Your task to perform on an android device: open app "Skype" (install if not already installed) Image 0: 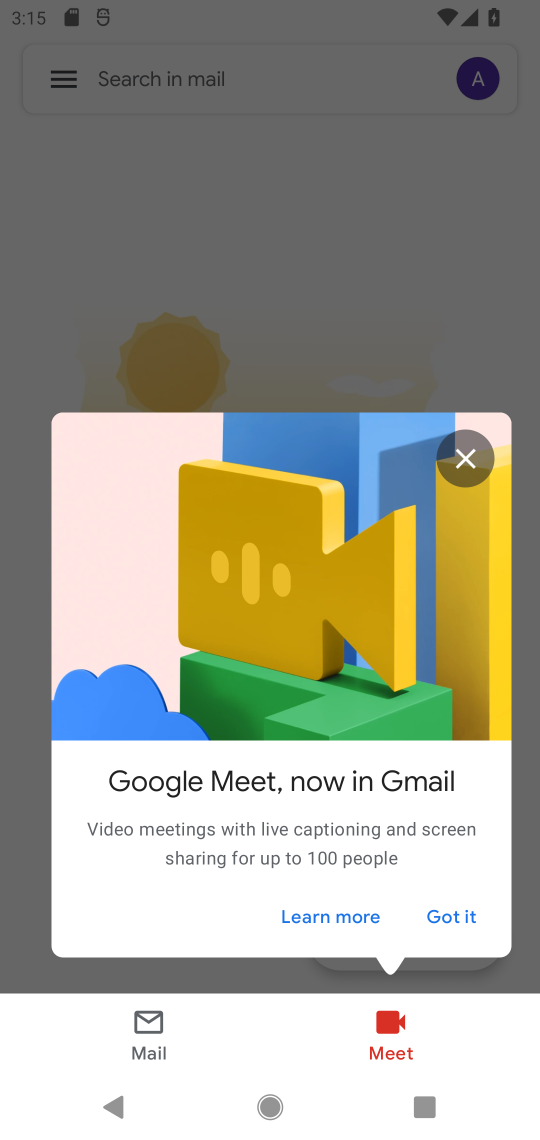
Step 0: press home button
Your task to perform on an android device: open app "Skype" (install if not already installed) Image 1: 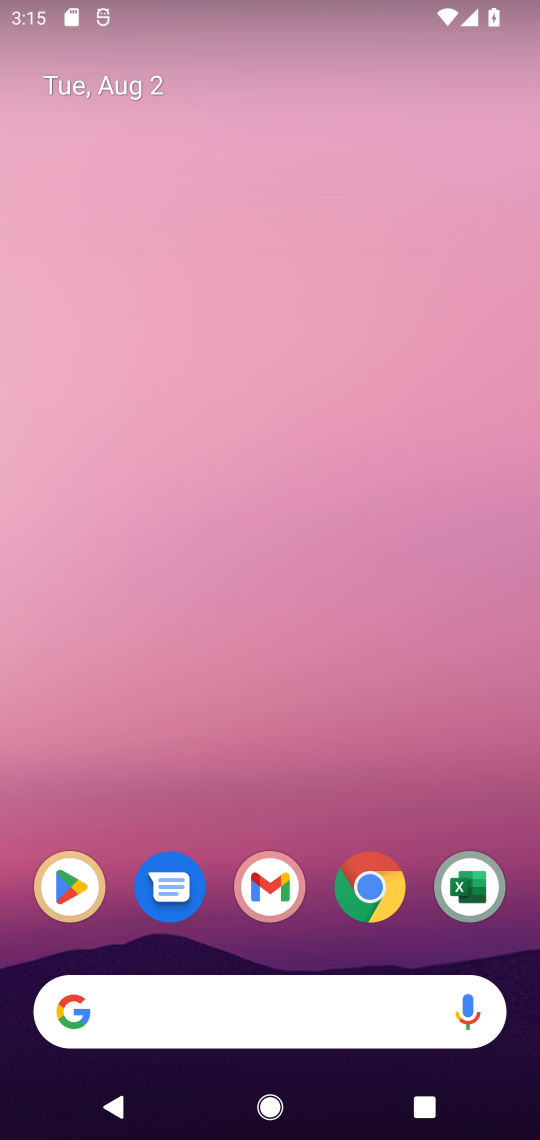
Step 1: click (63, 883)
Your task to perform on an android device: open app "Skype" (install if not already installed) Image 2: 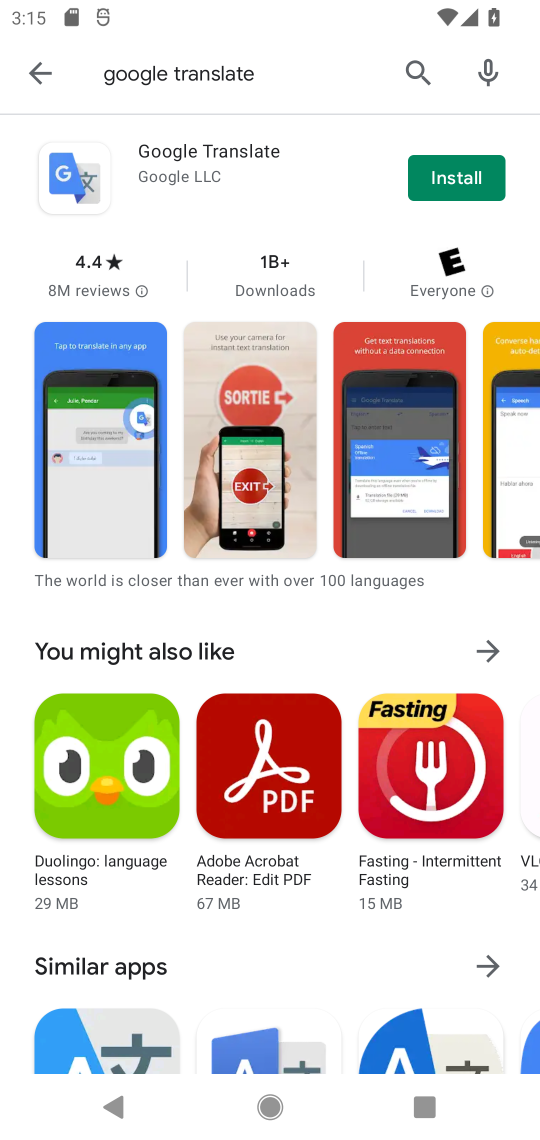
Step 2: click (52, 59)
Your task to perform on an android device: open app "Skype" (install if not already installed) Image 3: 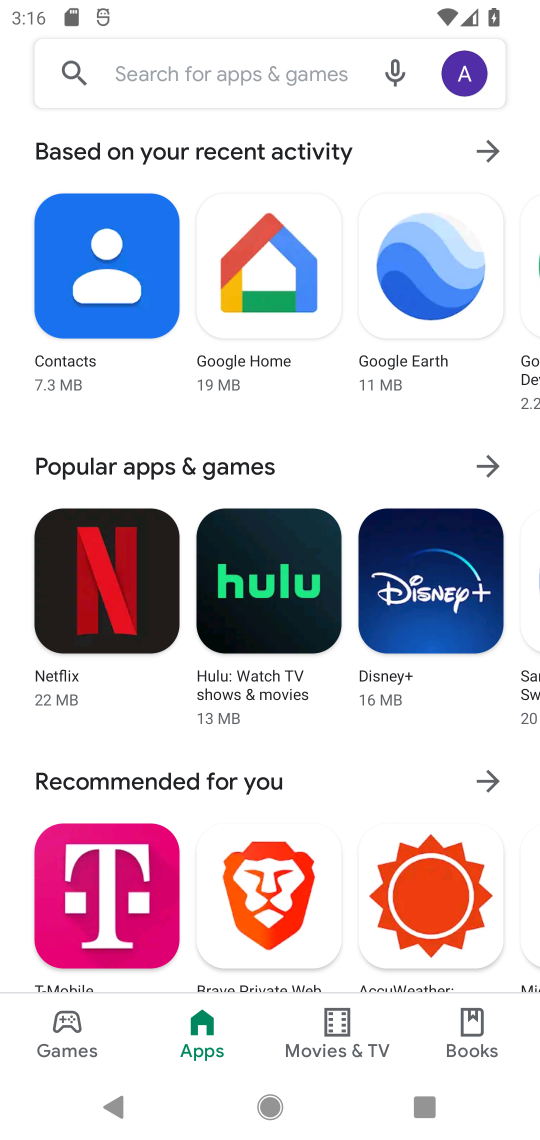
Step 3: click (131, 76)
Your task to perform on an android device: open app "Skype" (install if not already installed) Image 4: 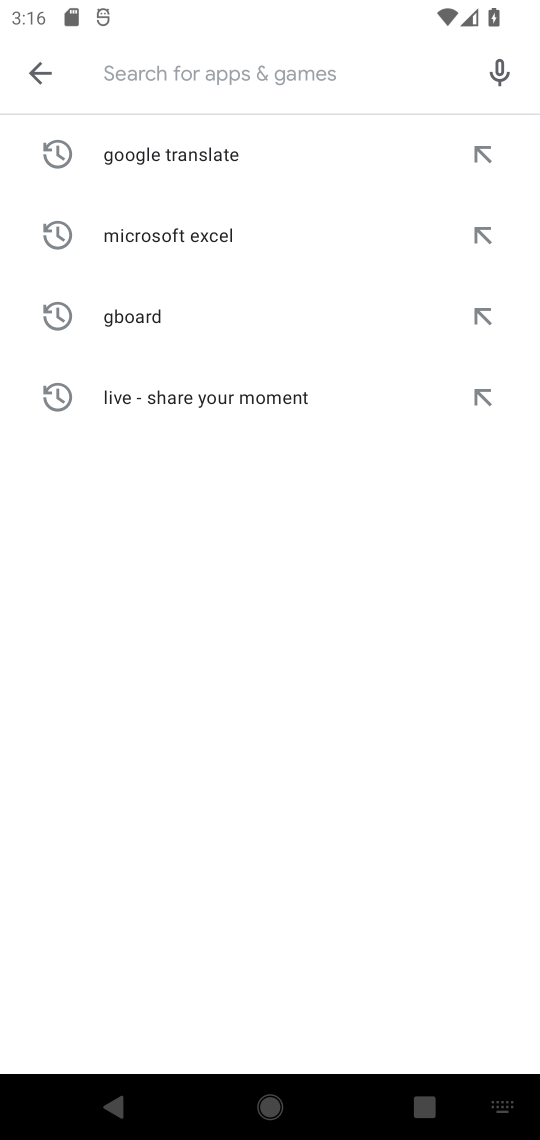
Step 4: type "Skype"
Your task to perform on an android device: open app "Skype" (install if not already installed) Image 5: 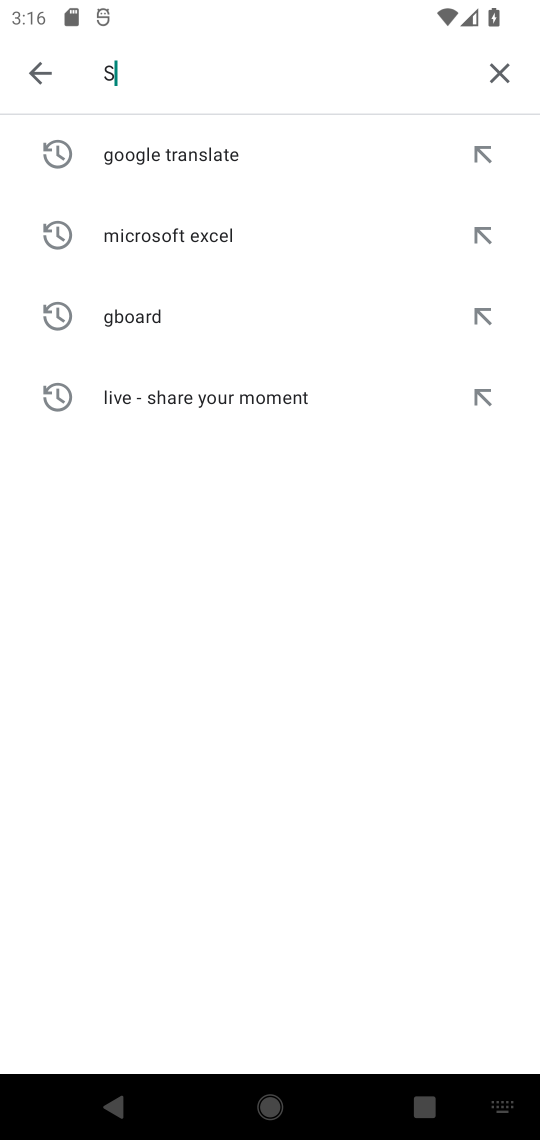
Step 5: type ""
Your task to perform on an android device: open app "Skype" (install if not already installed) Image 6: 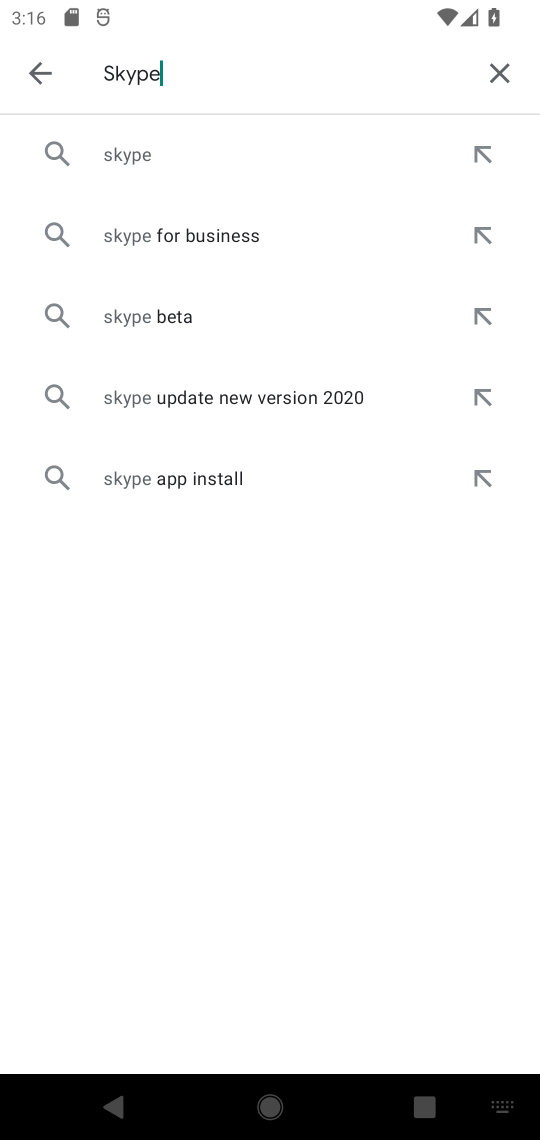
Step 6: click (147, 167)
Your task to perform on an android device: open app "Skype" (install if not already installed) Image 7: 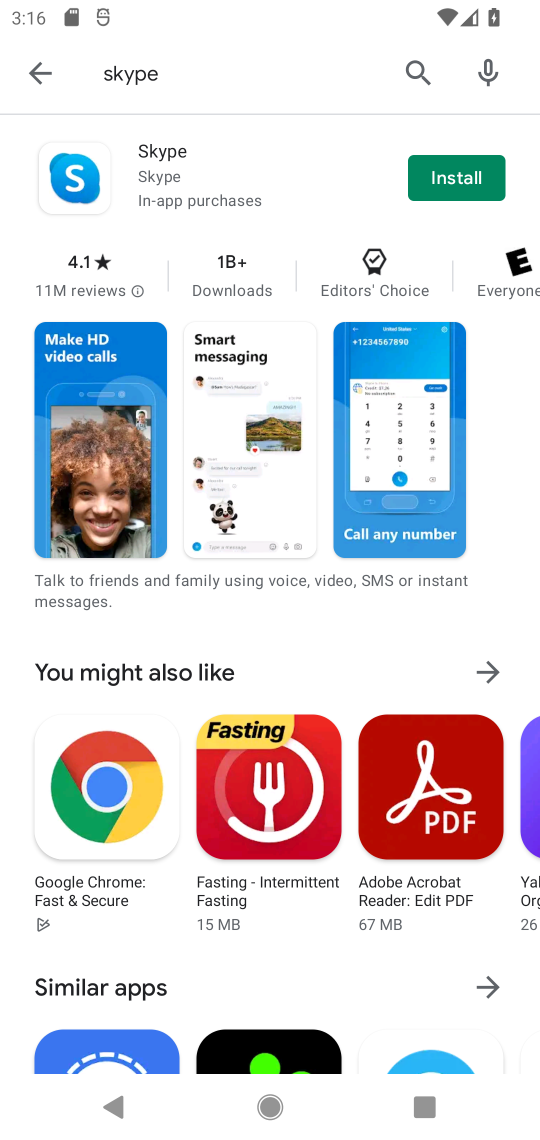
Step 7: click (459, 187)
Your task to perform on an android device: open app "Skype" (install if not already installed) Image 8: 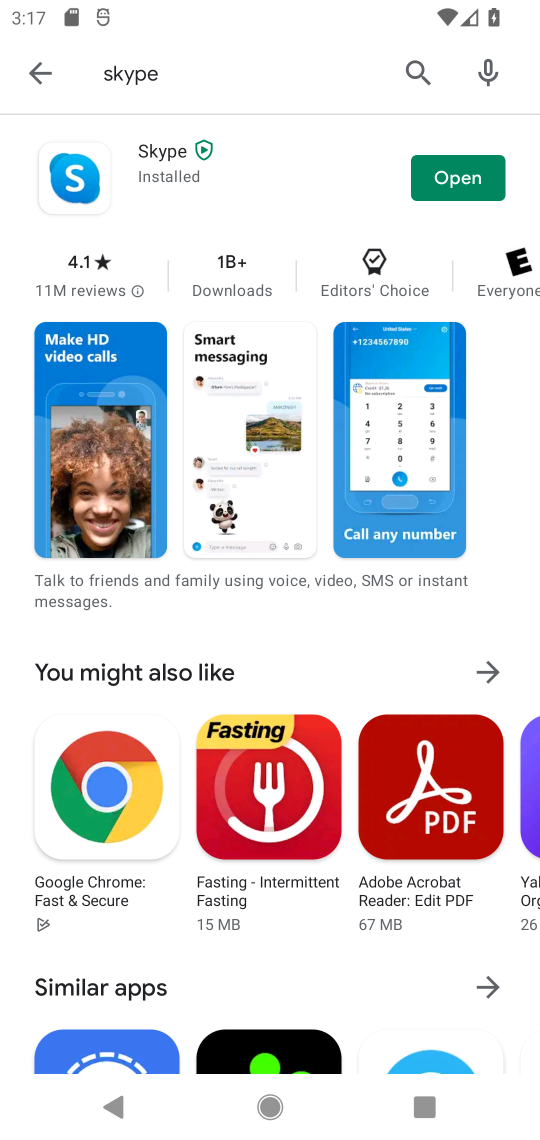
Step 8: task complete